Your task to perform on an android device: allow notifications from all sites in the chrome app Image 0: 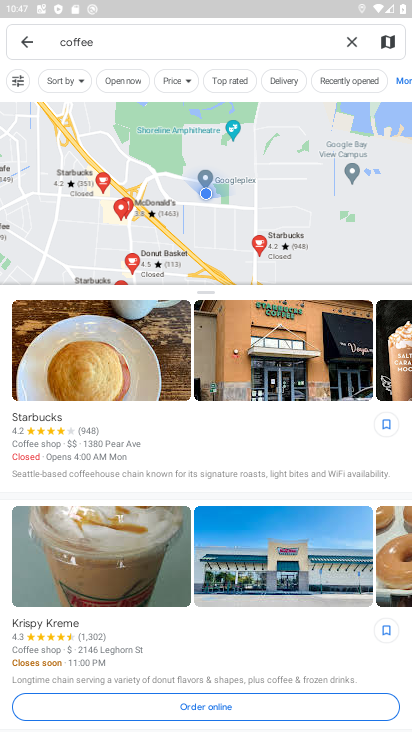
Step 0: press home button
Your task to perform on an android device: allow notifications from all sites in the chrome app Image 1: 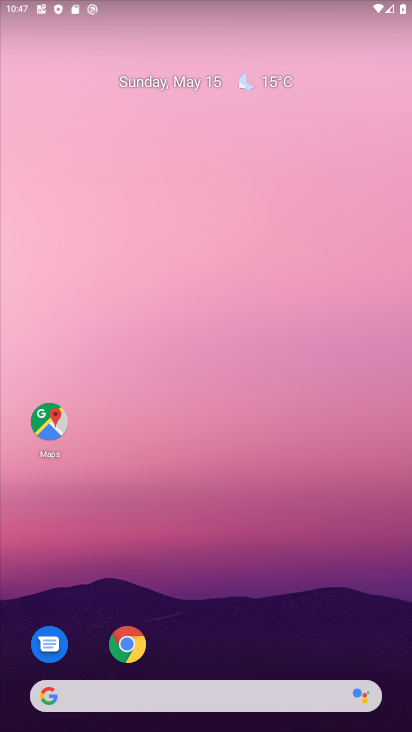
Step 1: click (123, 629)
Your task to perform on an android device: allow notifications from all sites in the chrome app Image 2: 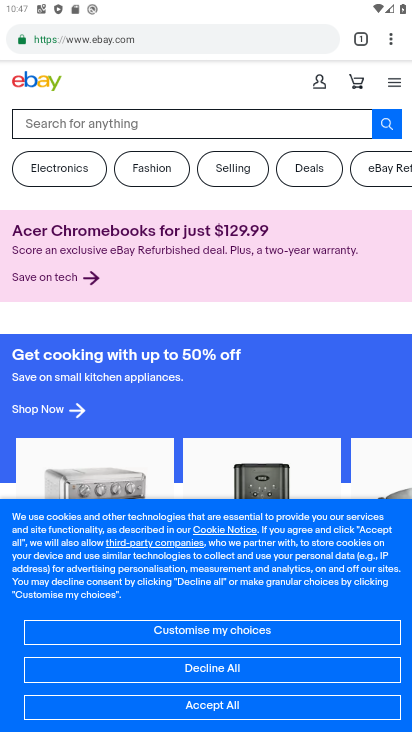
Step 2: click (391, 48)
Your task to perform on an android device: allow notifications from all sites in the chrome app Image 3: 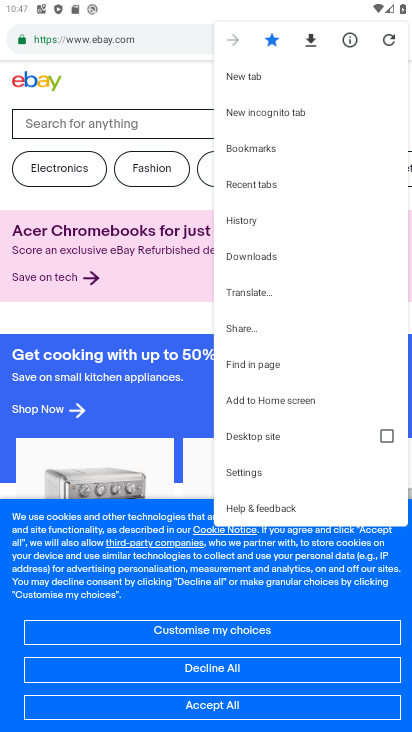
Step 3: click (257, 460)
Your task to perform on an android device: allow notifications from all sites in the chrome app Image 4: 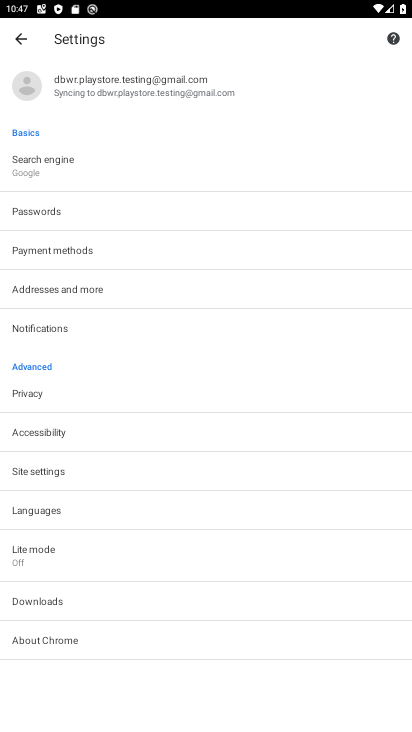
Step 4: click (63, 321)
Your task to perform on an android device: allow notifications from all sites in the chrome app Image 5: 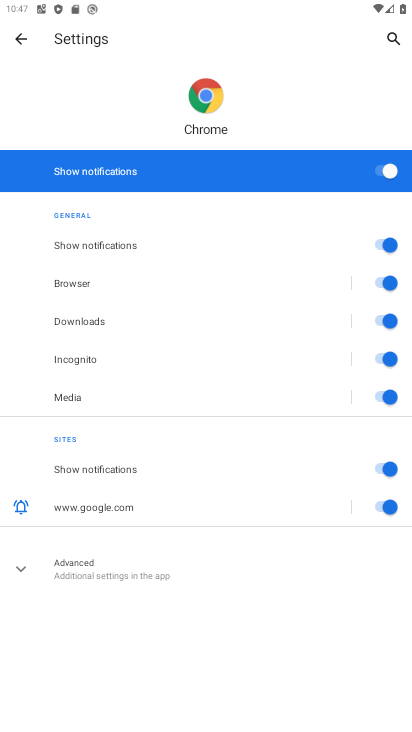
Step 5: task complete